Your task to perform on an android device: Is it going to rain tomorrow? Image 0: 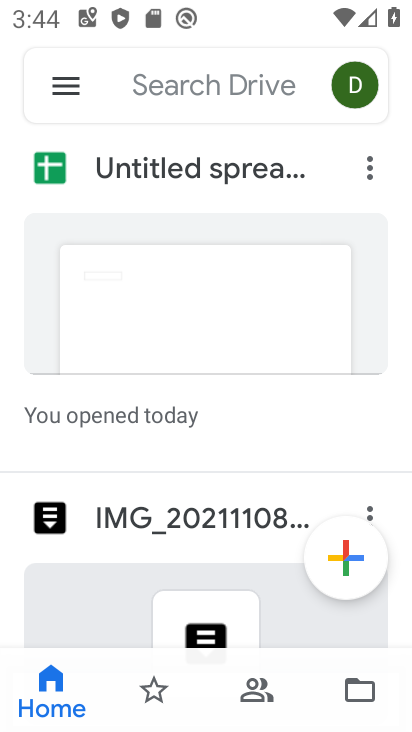
Step 0: press home button
Your task to perform on an android device: Is it going to rain tomorrow? Image 1: 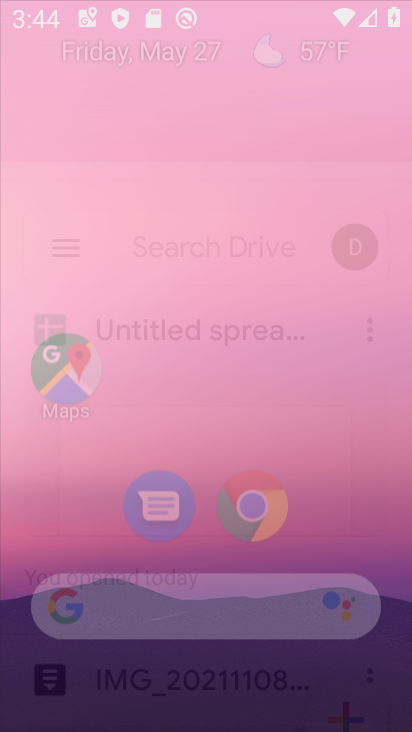
Step 1: press home button
Your task to perform on an android device: Is it going to rain tomorrow? Image 2: 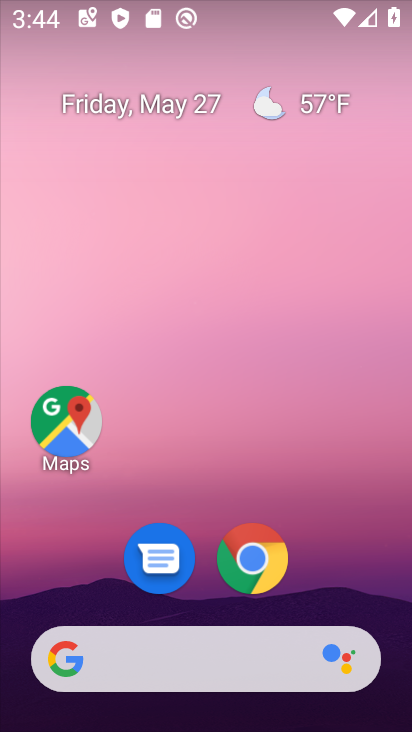
Step 2: drag from (358, 578) to (322, 275)
Your task to perform on an android device: Is it going to rain tomorrow? Image 3: 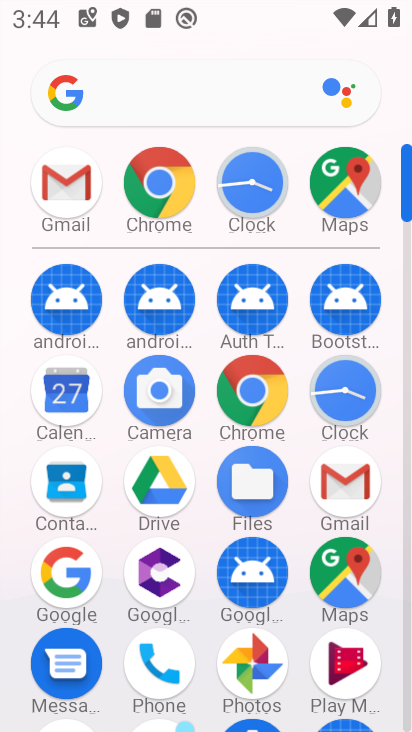
Step 3: click (405, 498)
Your task to perform on an android device: Is it going to rain tomorrow? Image 4: 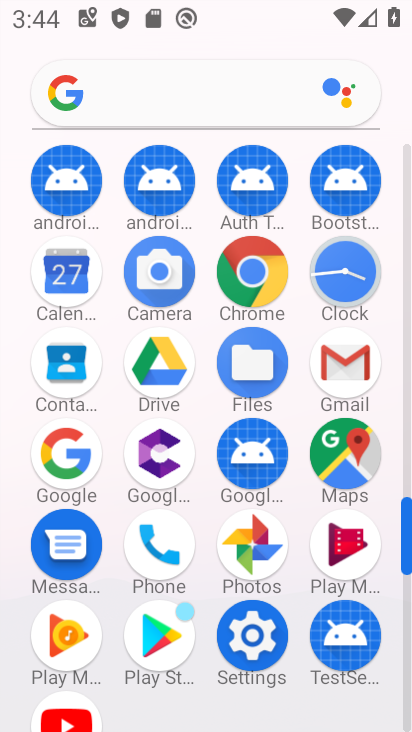
Step 4: click (261, 626)
Your task to perform on an android device: Is it going to rain tomorrow? Image 5: 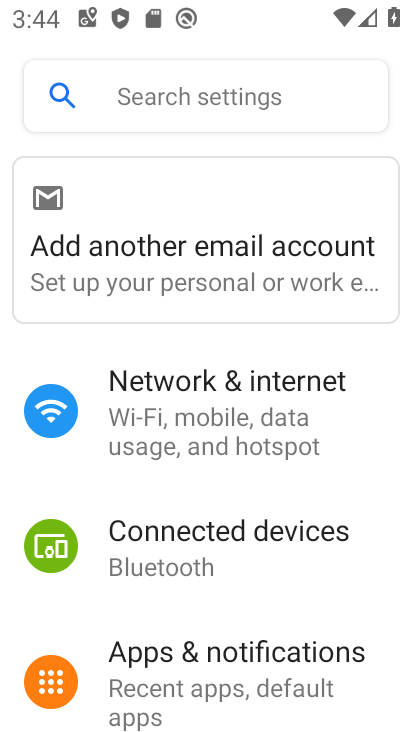
Step 5: press home button
Your task to perform on an android device: Is it going to rain tomorrow? Image 6: 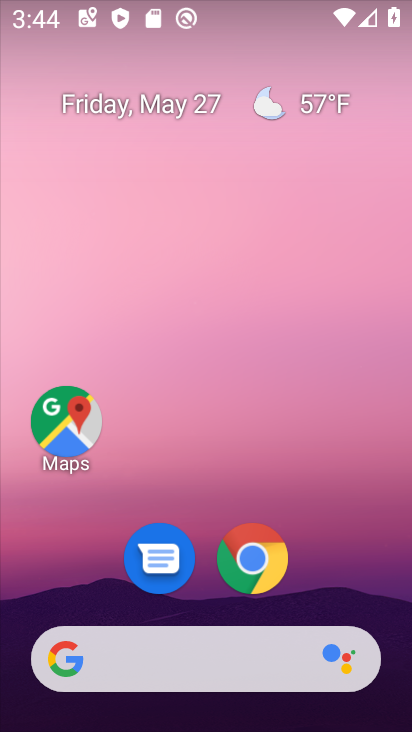
Step 6: click (215, 652)
Your task to perform on an android device: Is it going to rain tomorrow? Image 7: 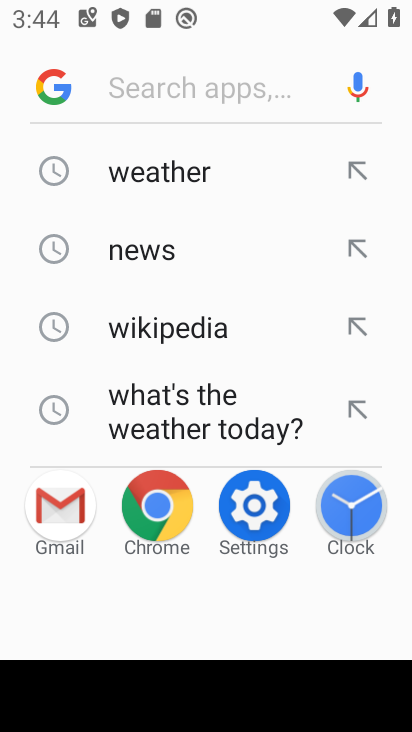
Step 7: click (200, 151)
Your task to perform on an android device: Is it going to rain tomorrow? Image 8: 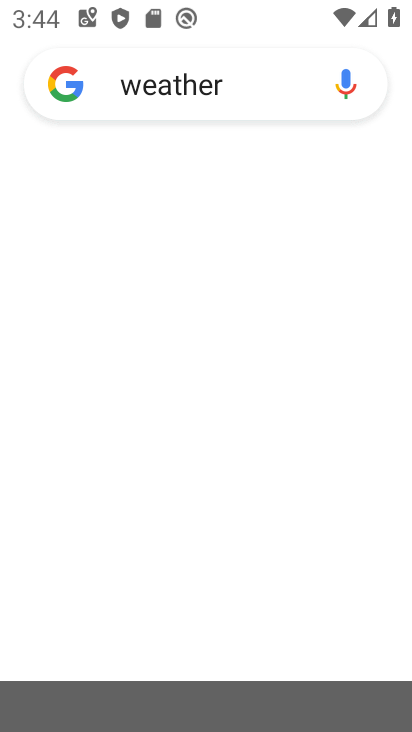
Step 8: task complete